Your task to perform on an android device: open a bookmark in the chrome app Image 0: 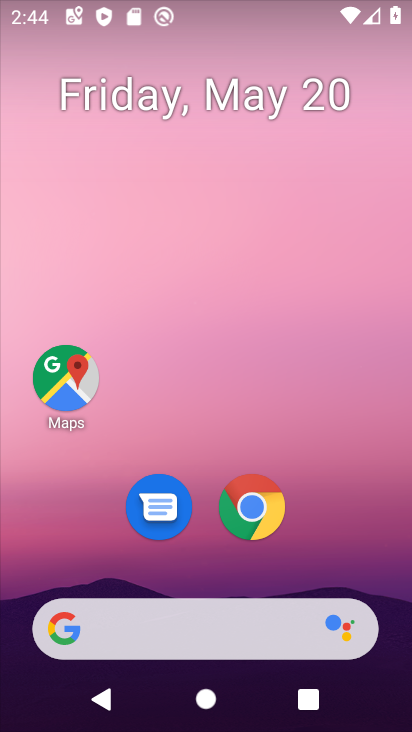
Step 0: click (256, 514)
Your task to perform on an android device: open a bookmark in the chrome app Image 1: 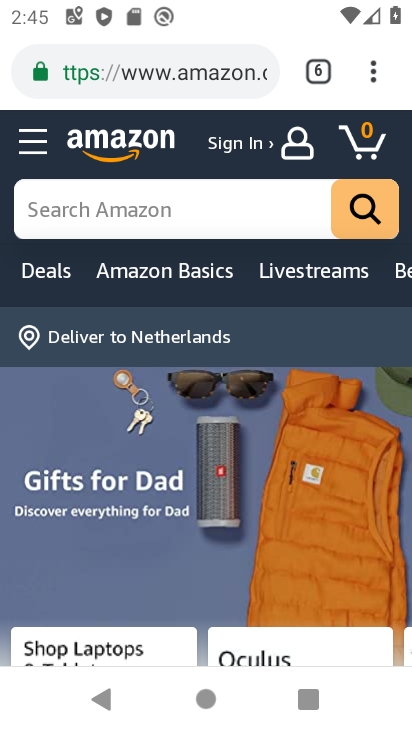
Step 1: click (373, 74)
Your task to perform on an android device: open a bookmark in the chrome app Image 2: 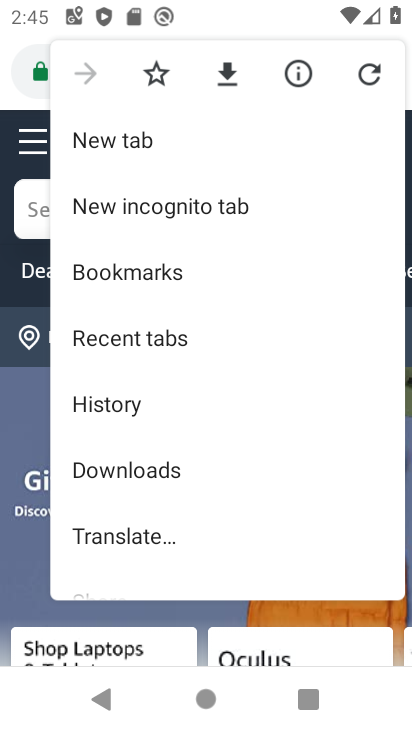
Step 2: click (142, 271)
Your task to perform on an android device: open a bookmark in the chrome app Image 3: 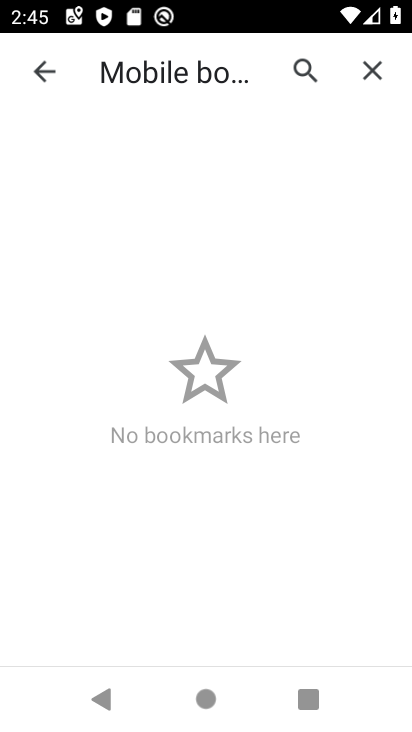
Step 3: task complete